Your task to perform on an android device: Open battery settings Image 0: 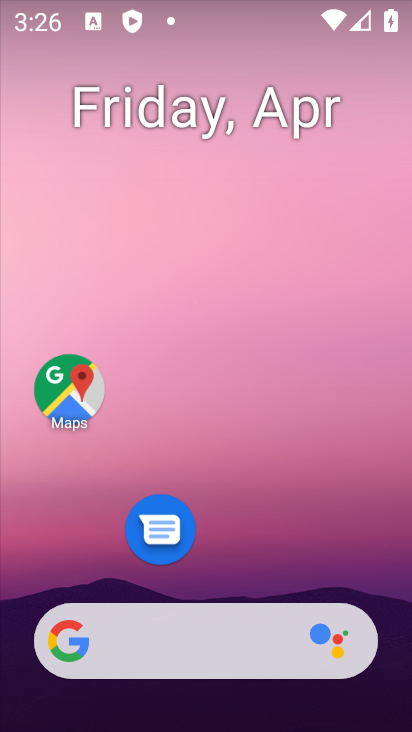
Step 0: drag from (239, 605) to (239, 366)
Your task to perform on an android device: Open battery settings Image 1: 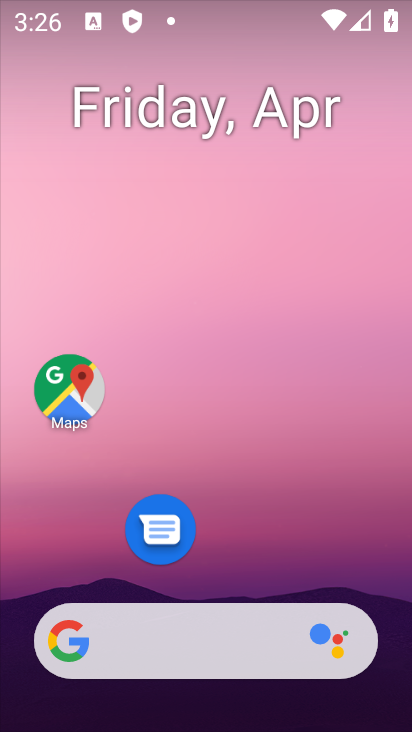
Step 1: drag from (225, 508) to (237, 287)
Your task to perform on an android device: Open battery settings Image 2: 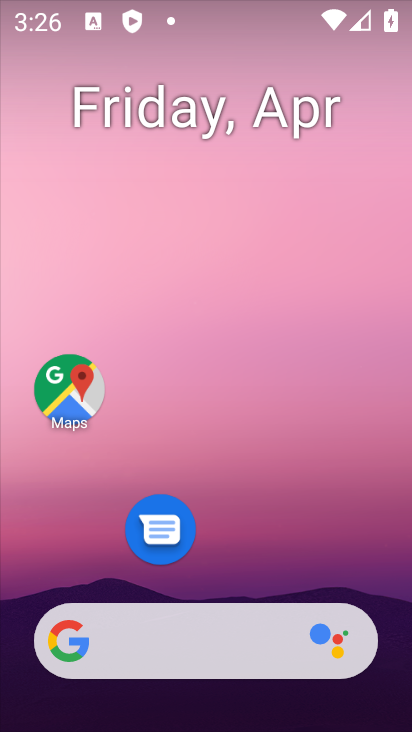
Step 2: drag from (226, 592) to (321, 135)
Your task to perform on an android device: Open battery settings Image 3: 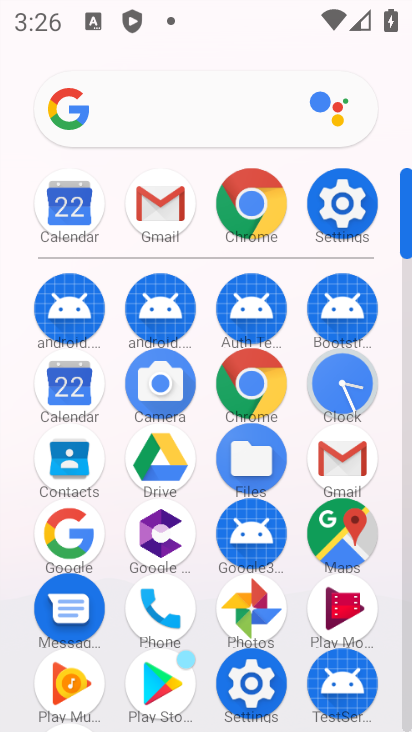
Step 3: click (352, 207)
Your task to perform on an android device: Open battery settings Image 4: 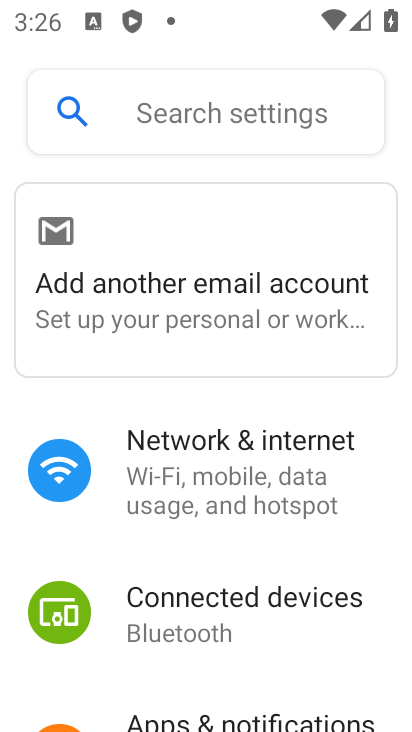
Step 4: drag from (271, 596) to (263, 225)
Your task to perform on an android device: Open battery settings Image 5: 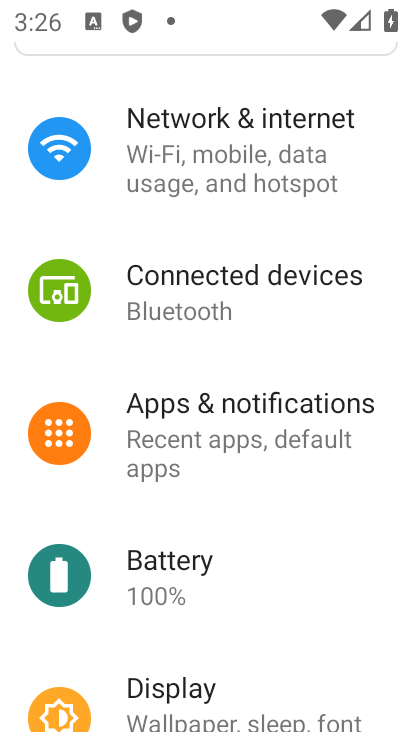
Step 5: click (233, 572)
Your task to perform on an android device: Open battery settings Image 6: 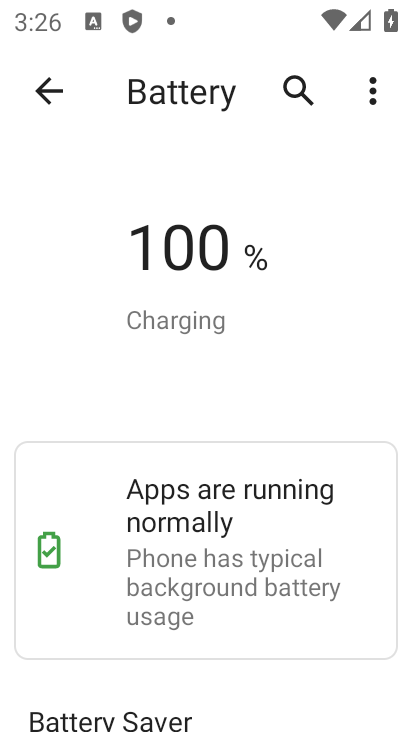
Step 6: task complete